Your task to perform on an android device: toggle priority inbox in the gmail app Image 0: 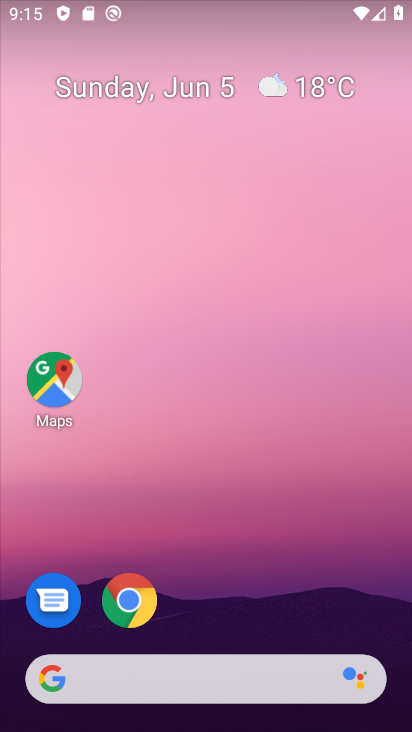
Step 0: drag from (216, 621) to (200, 216)
Your task to perform on an android device: toggle priority inbox in the gmail app Image 1: 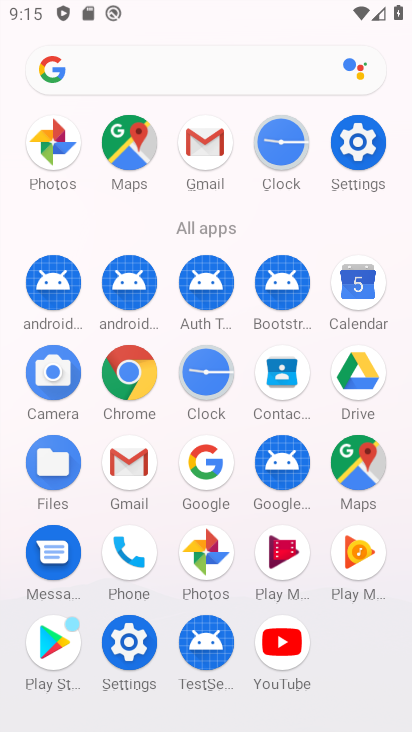
Step 1: click (211, 148)
Your task to perform on an android device: toggle priority inbox in the gmail app Image 2: 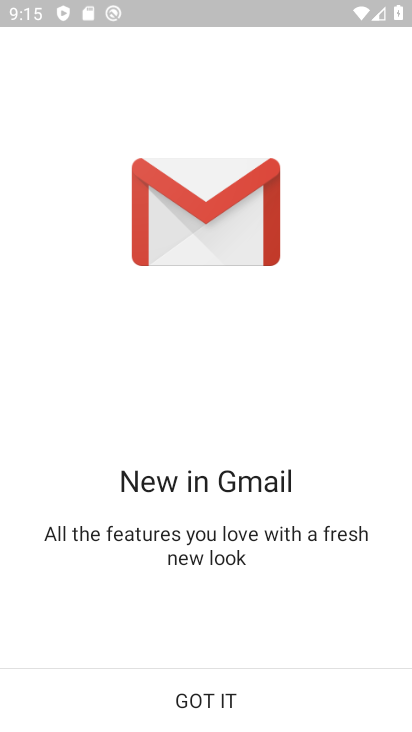
Step 2: click (166, 715)
Your task to perform on an android device: toggle priority inbox in the gmail app Image 3: 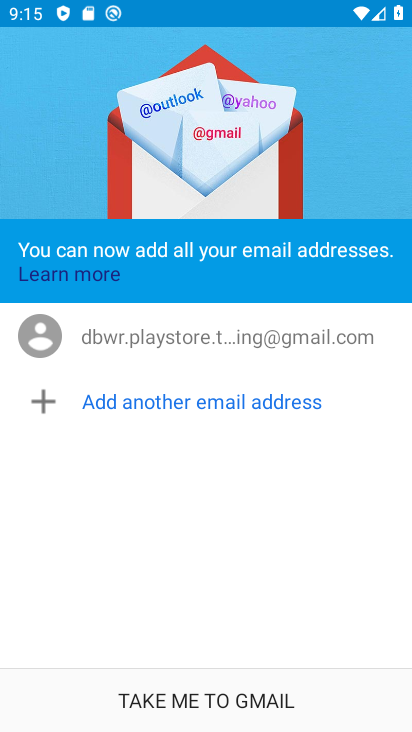
Step 3: click (166, 707)
Your task to perform on an android device: toggle priority inbox in the gmail app Image 4: 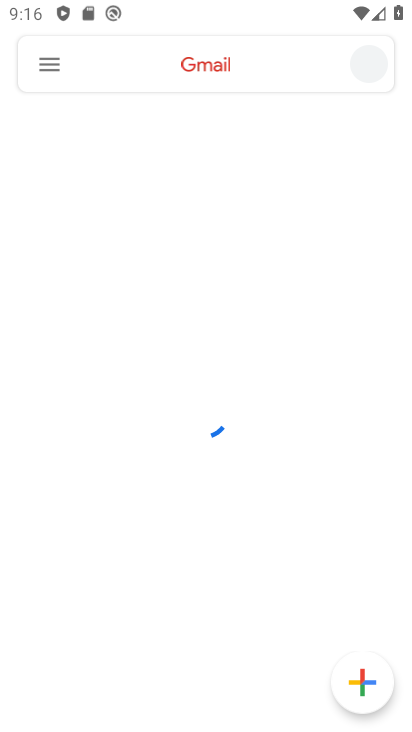
Step 4: click (61, 58)
Your task to perform on an android device: toggle priority inbox in the gmail app Image 5: 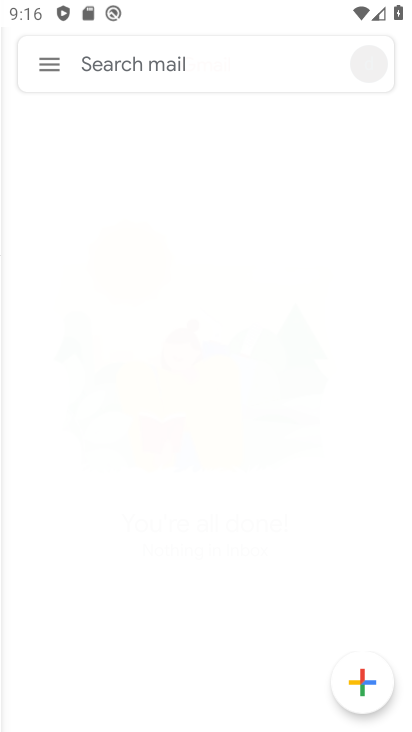
Step 5: click (127, 296)
Your task to perform on an android device: toggle priority inbox in the gmail app Image 6: 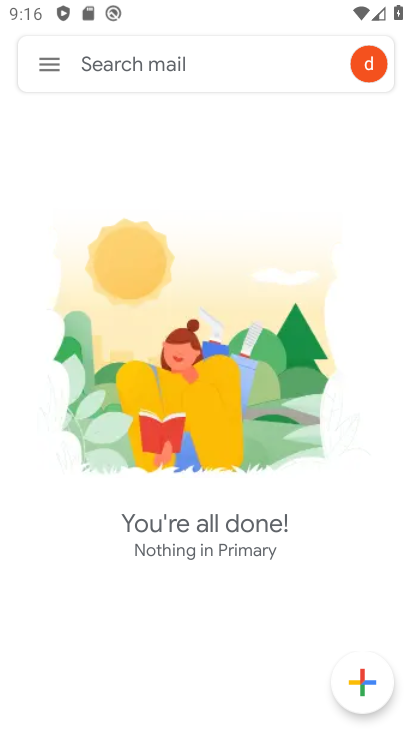
Step 6: click (55, 67)
Your task to perform on an android device: toggle priority inbox in the gmail app Image 7: 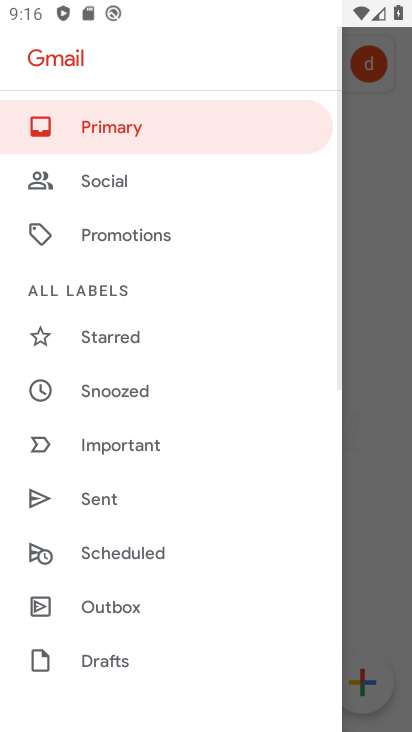
Step 7: drag from (131, 598) to (151, 97)
Your task to perform on an android device: toggle priority inbox in the gmail app Image 8: 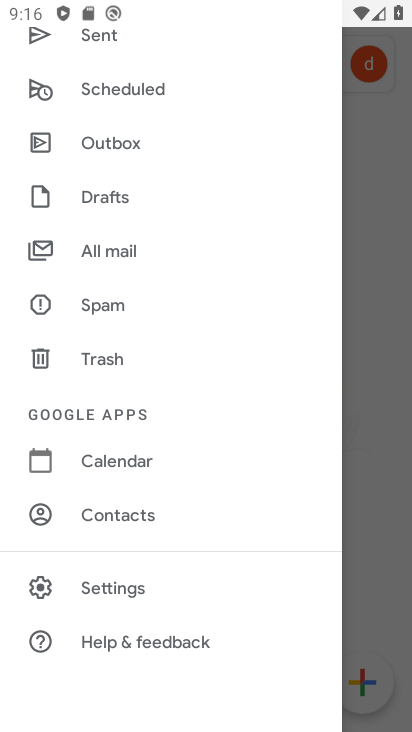
Step 8: click (88, 594)
Your task to perform on an android device: toggle priority inbox in the gmail app Image 9: 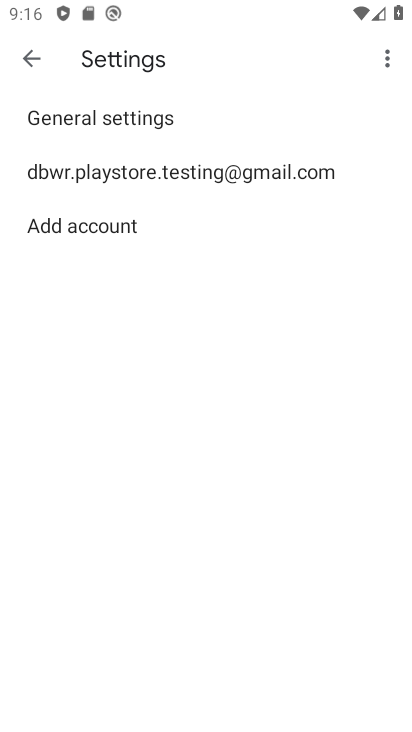
Step 9: click (146, 182)
Your task to perform on an android device: toggle priority inbox in the gmail app Image 10: 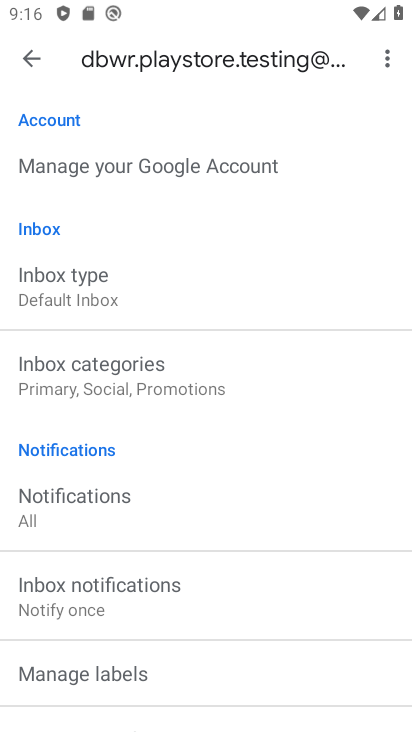
Step 10: click (83, 298)
Your task to perform on an android device: toggle priority inbox in the gmail app Image 11: 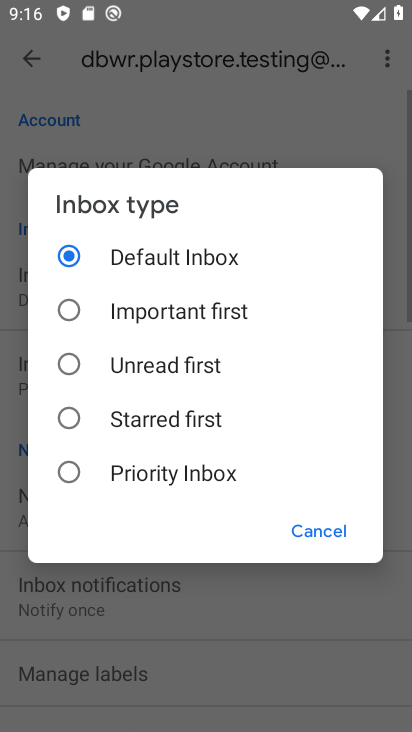
Step 11: click (155, 482)
Your task to perform on an android device: toggle priority inbox in the gmail app Image 12: 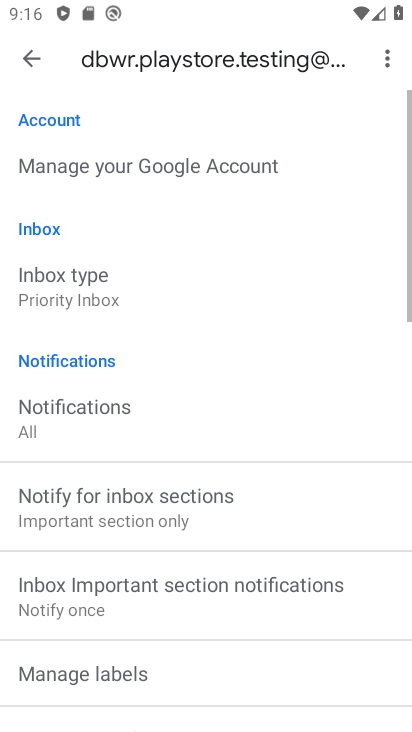
Step 12: task complete